Your task to perform on an android device: Find coffee shops on Maps Image 0: 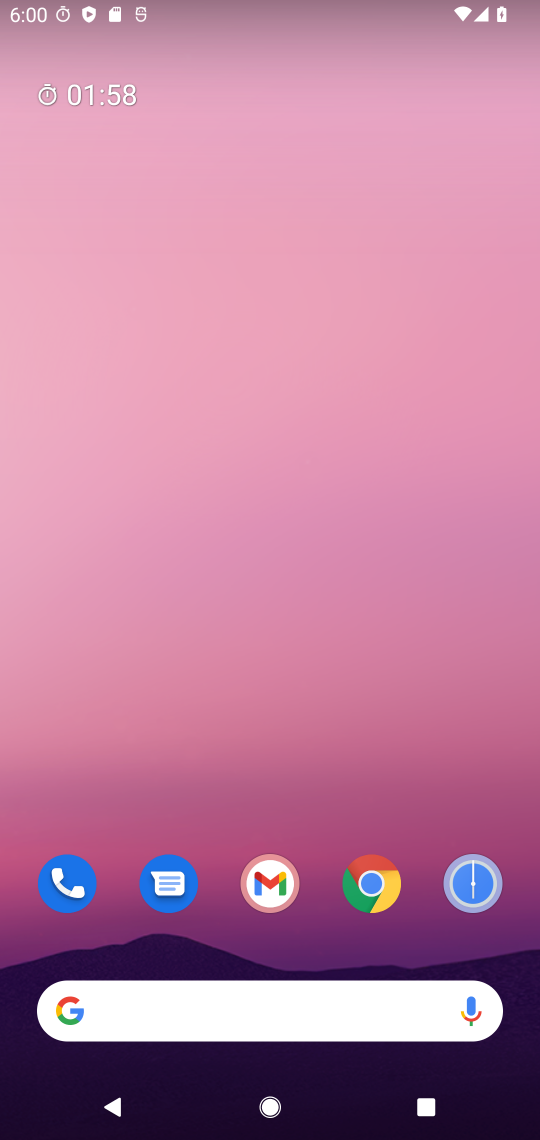
Step 0: drag from (306, 647) to (306, 227)
Your task to perform on an android device: Find coffee shops on Maps Image 1: 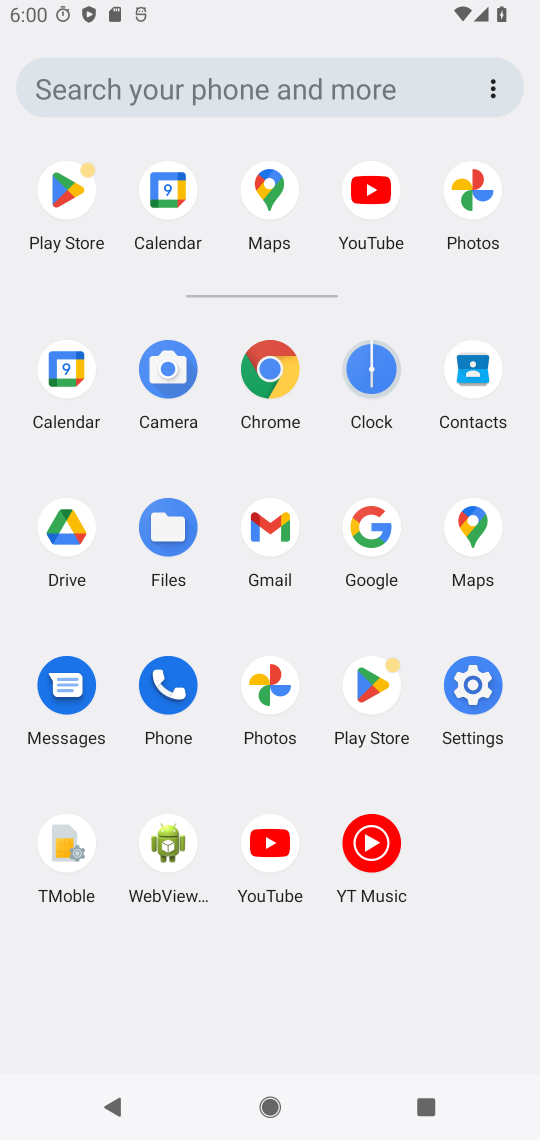
Step 1: click (257, 209)
Your task to perform on an android device: Find coffee shops on Maps Image 2: 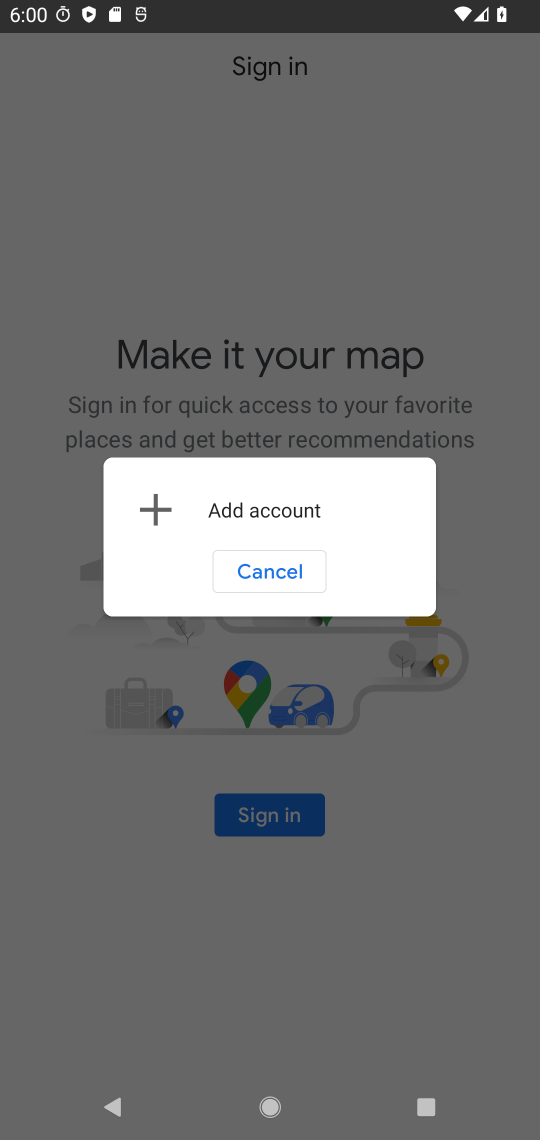
Step 2: click (274, 565)
Your task to perform on an android device: Find coffee shops on Maps Image 3: 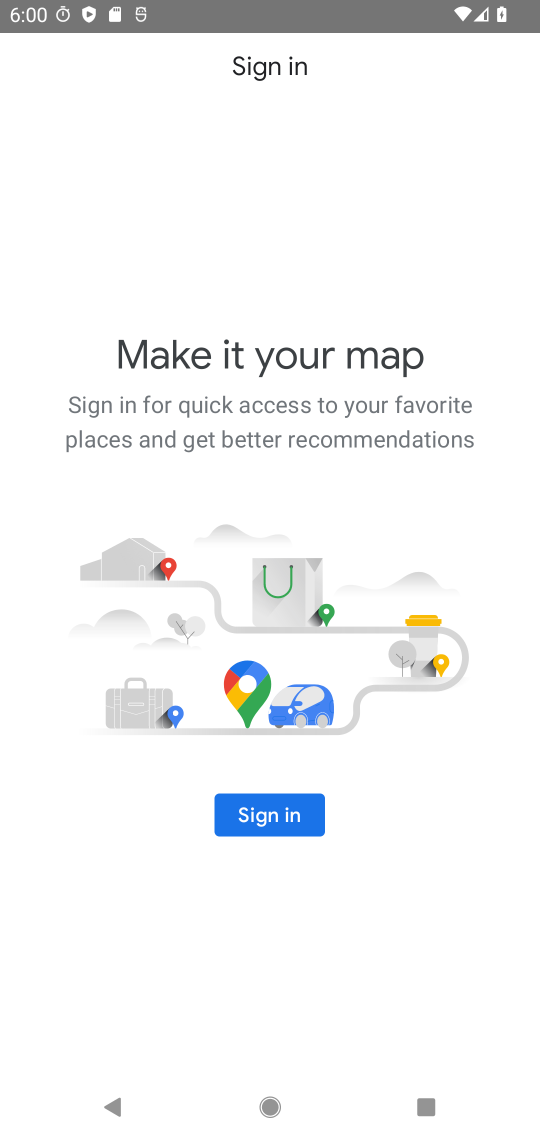
Step 3: task complete